Your task to perform on an android device: open wifi settings Image 0: 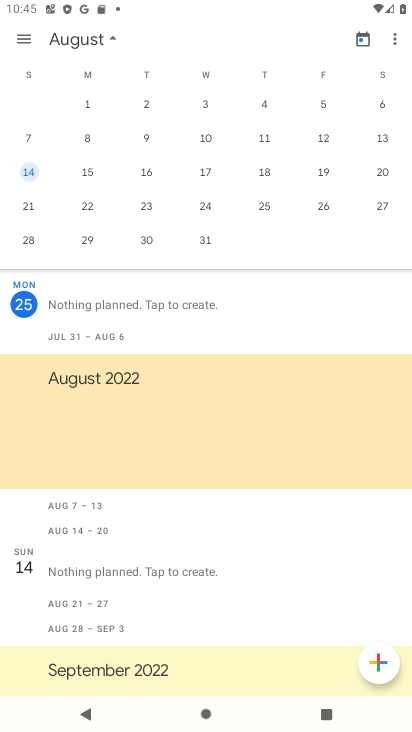
Step 0: press home button
Your task to perform on an android device: open wifi settings Image 1: 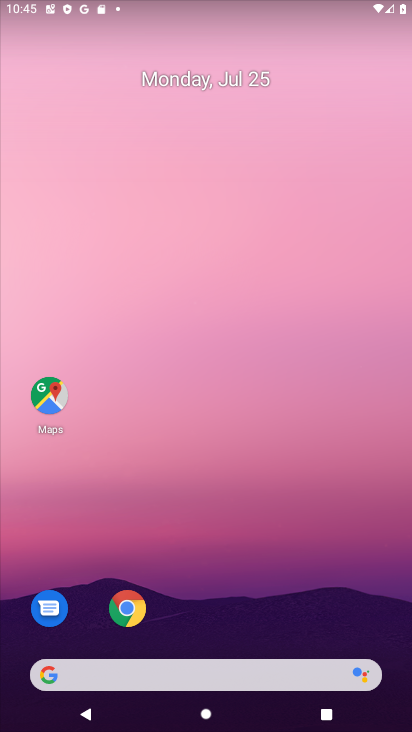
Step 1: drag from (185, 606) to (198, 27)
Your task to perform on an android device: open wifi settings Image 2: 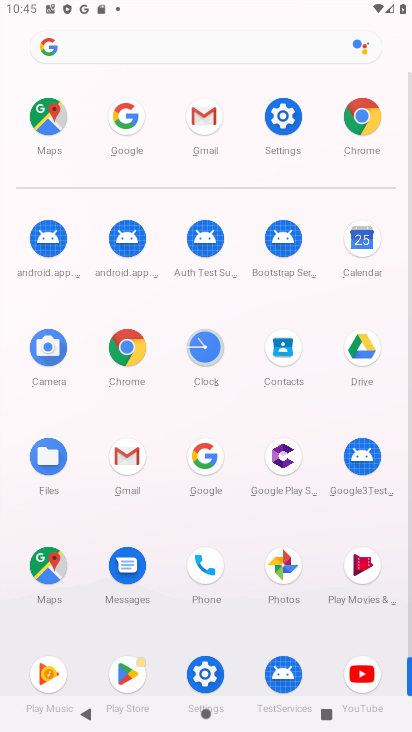
Step 2: click (271, 126)
Your task to perform on an android device: open wifi settings Image 3: 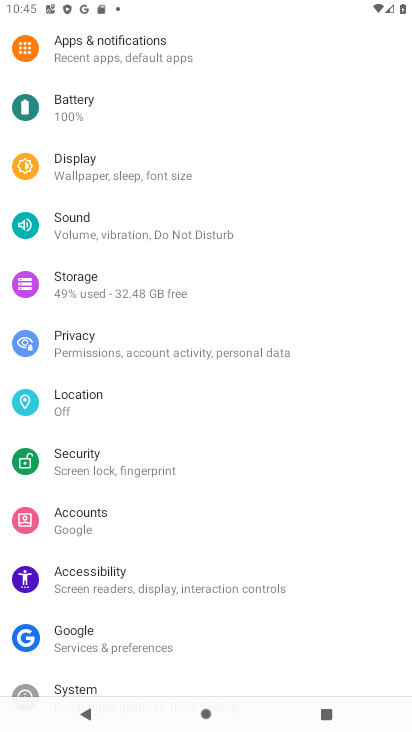
Step 3: drag from (145, 259) to (139, 530)
Your task to perform on an android device: open wifi settings Image 4: 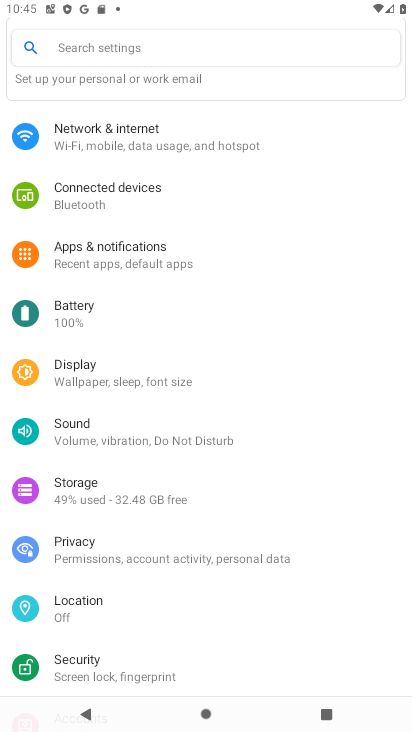
Step 4: click (181, 141)
Your task to perform on an android device: open wifi settings Image 5: 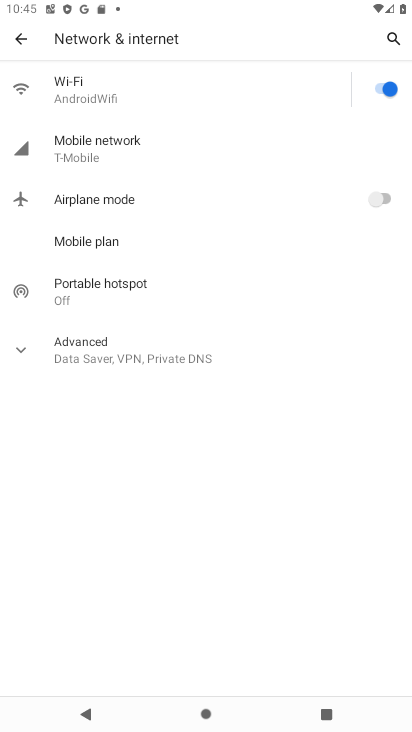
Step 5: click (154, 101)
Your task to perform on an android device: open wifi settings Image 6: 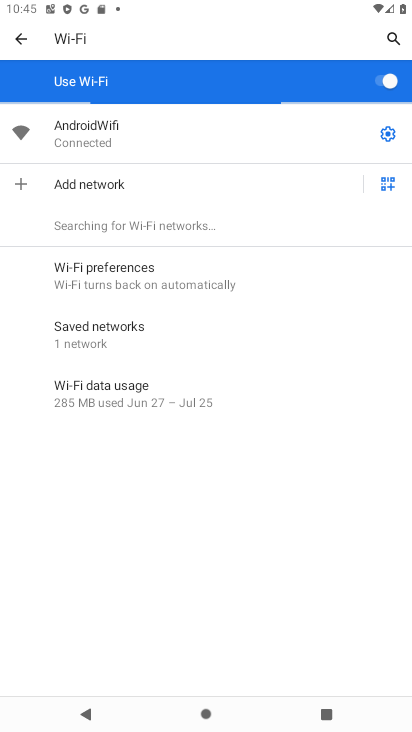
Step 6: task complete